Your task to perform on an android device: change the clock style Image 0: 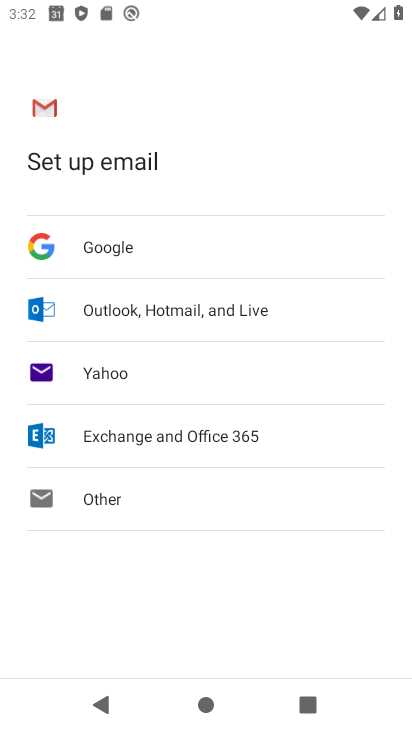
Step 0: press back button
Your task to perform on an android device: change the clock style Image 1: 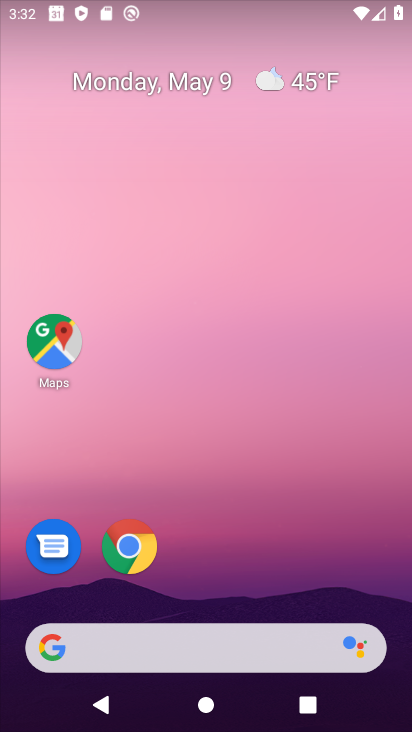
Step 1: drag from (234, 614) to (265, 388)
Your task to perform on an android device: change the clock style Image 2: 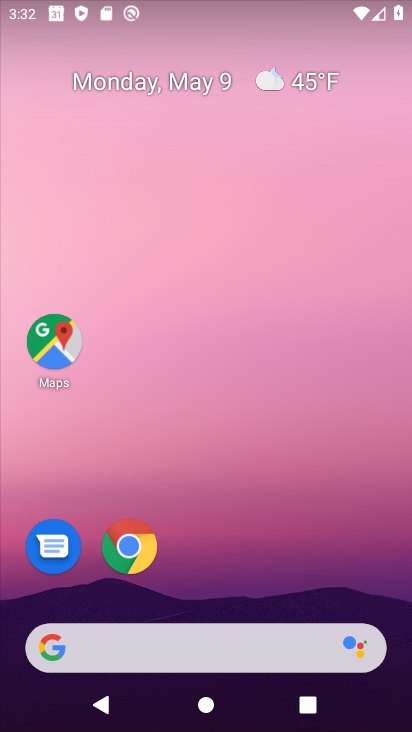
Step 2: drag from (217, 585) to (244, 433)
Your task to perform on an android device: change the clock style Image 3: 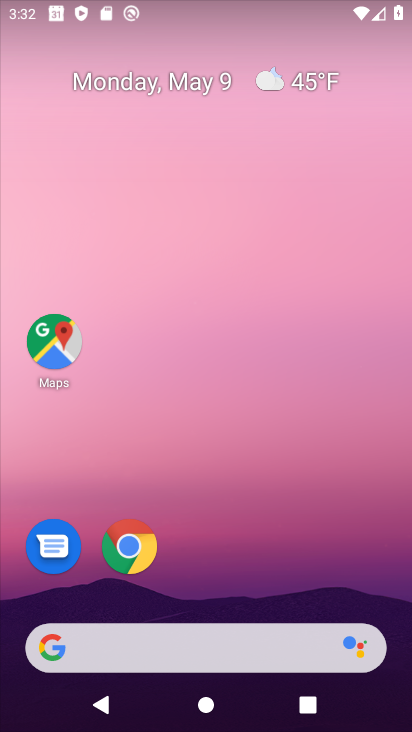
Step 3: drag from (181, 630) to (192, 590)
Your task to perform on an android device: change the clock style Image 4: 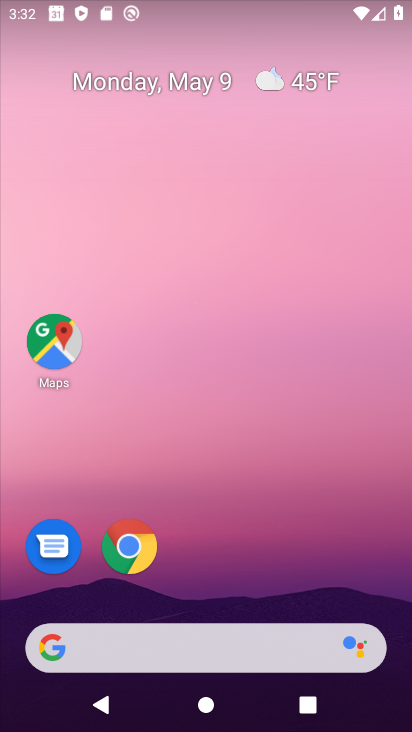
Step 4: drag from (196, 606) to (212, 467)
Your task to perform on an android device: change the clock style Image 5: 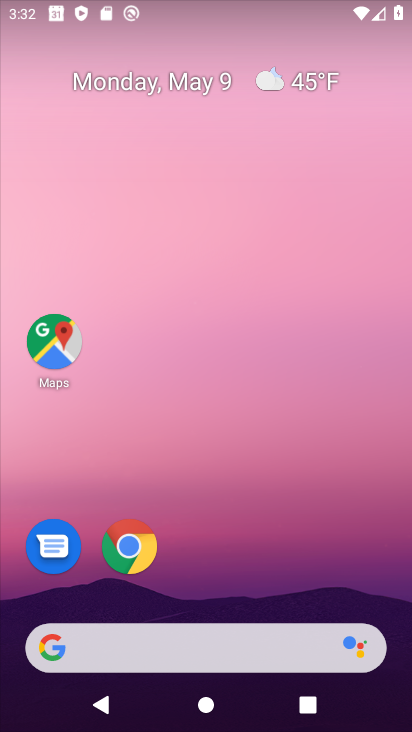
Step 5: drag from (227, 556) to (306, 296)
Your task to perform on an android device: change the clock style Image 6: 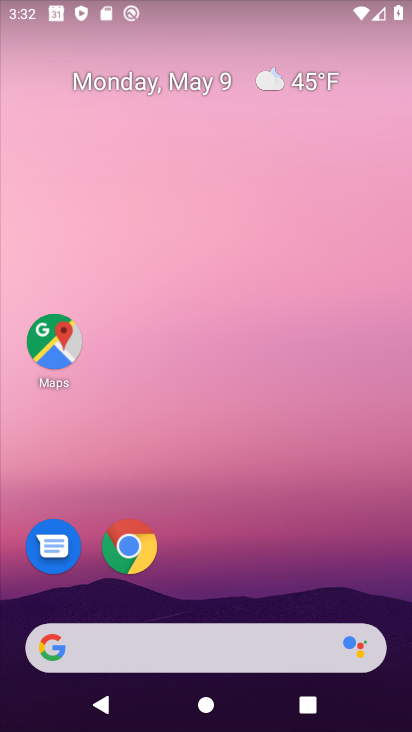
Step 6: drag from (292, 551) to (307, 487)
Your task to perform on an android device: change the clock style Image 7: 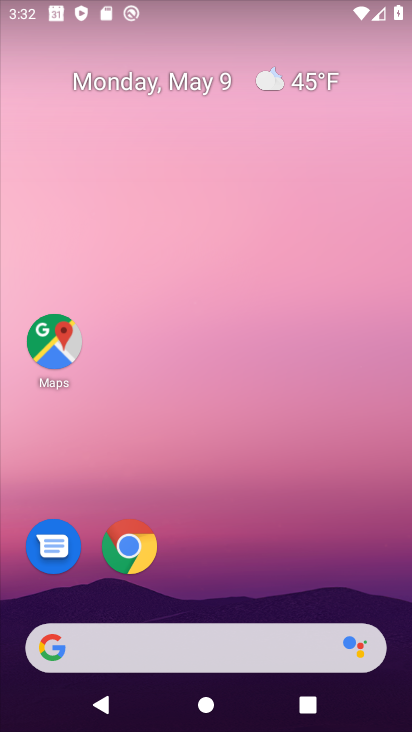
Step 7: drag from (290, 608) to (391, 234)
Your task to perform on an android device: change the clock style Image 8: 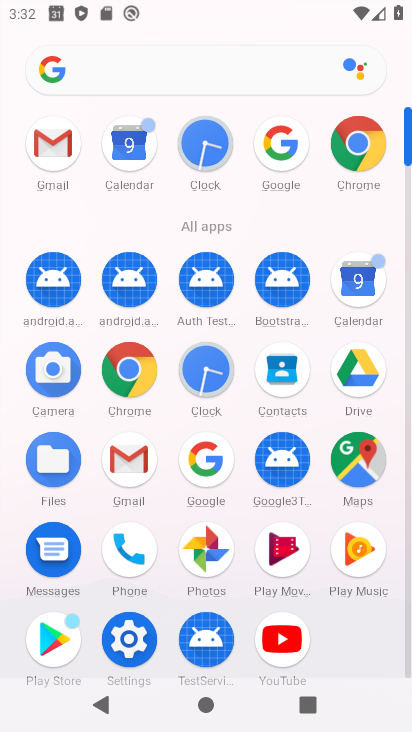
Step 8: click (208, 384)
Your task to perform on an android device: change the clock style Image 9: 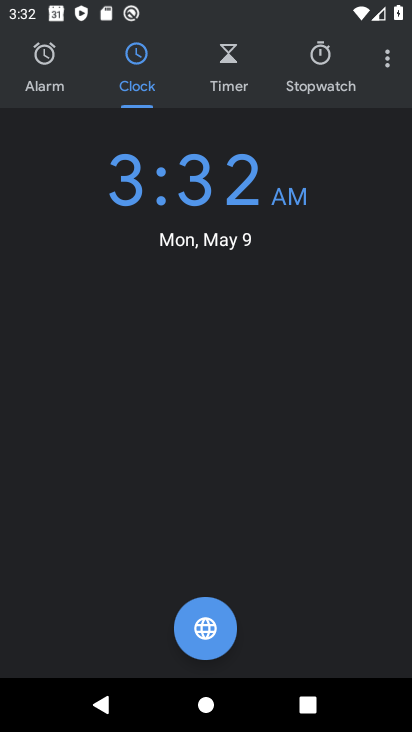
Step 9: click (379, 69)
Your task to perform on an android device: change the clock style Image 10: 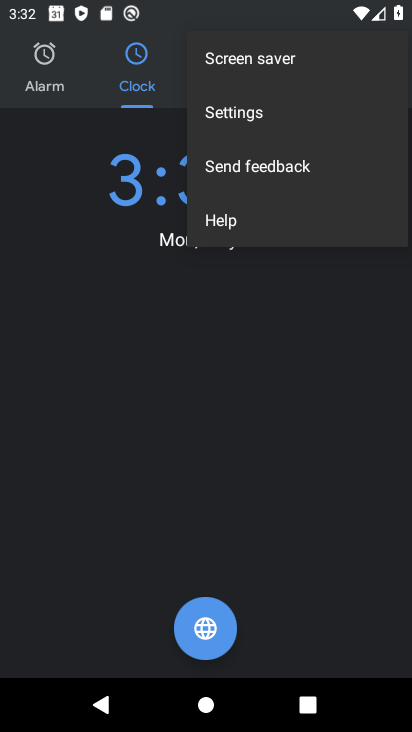
Step 10: click (351, 114)
Your task to perform on an android device: change the clock style Image 11: 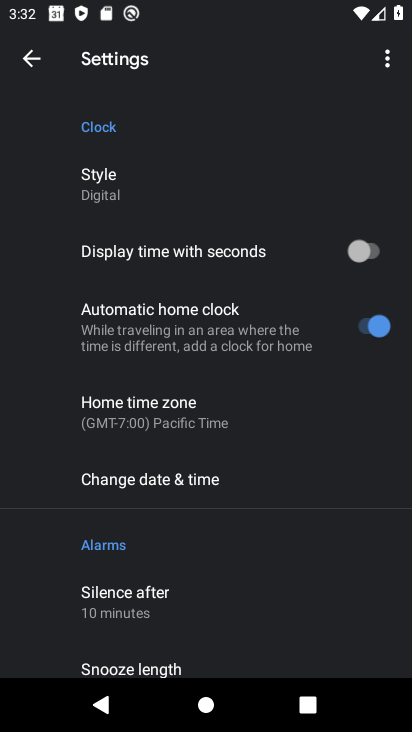
Step 11: click (241, 181)
Your task to perform on an android device: change the clock style Image 12: 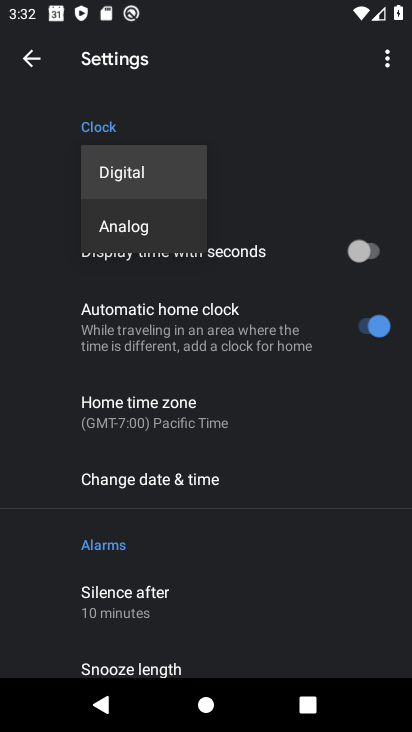
Step 12: click (164, 229)
Your task to perform on an android device: change the clock style Image 13: 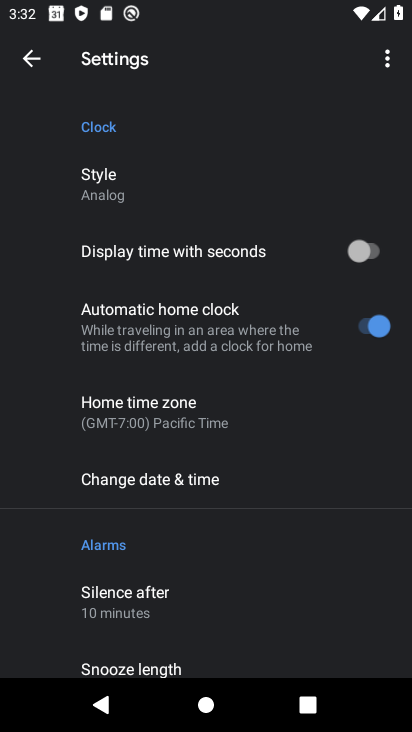
Step 13: task complete